Your task to perform on an android device: turn off improve location accuracy Image 0: 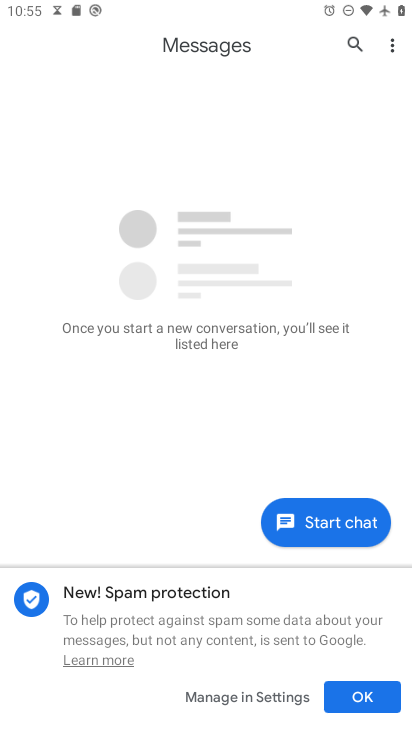
Step 0: press home button
Your task to perform on an android device: turn off improve location accuracy Image 1: 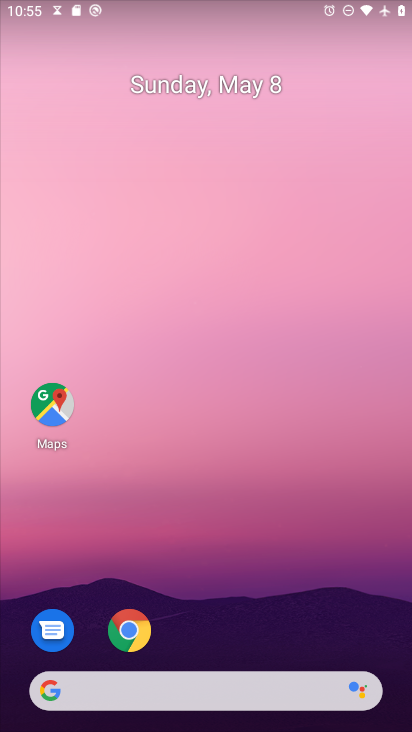
Step 1: drag from (148, 687) to (233, 196)
Your task to perform on an android device: turn off improve location accuracy Image 2: 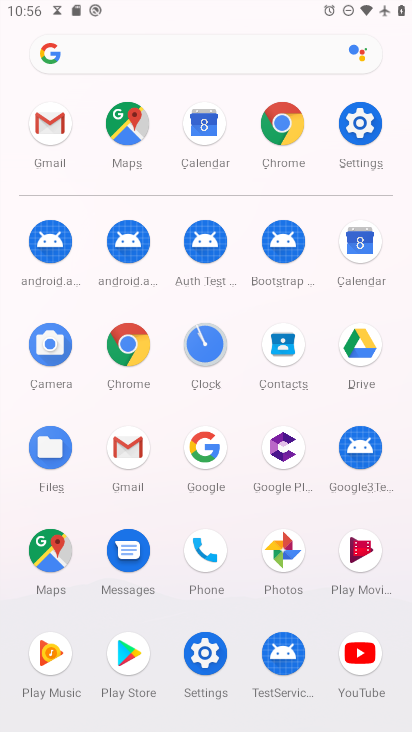
Step 2: click (368, 124)
Your task to perform on an android device: turn off improve location accuracy Image 3: 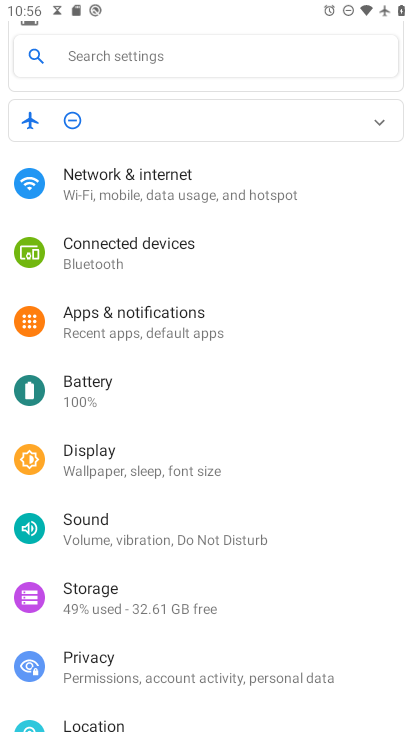
Step 3: drag from (214, 582) to (303, 314)
Your task to perform on an android device: turn off improve location accuracy Image 4: 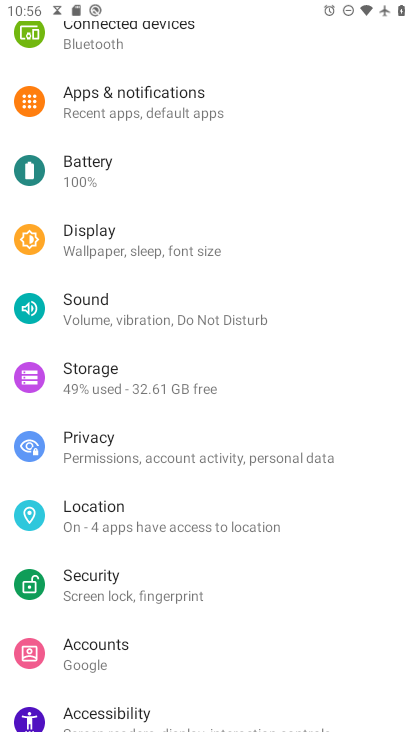
Step 4: click (109, 512)
Your task to perform on an android device: turn off improve location accuracy Image 5: 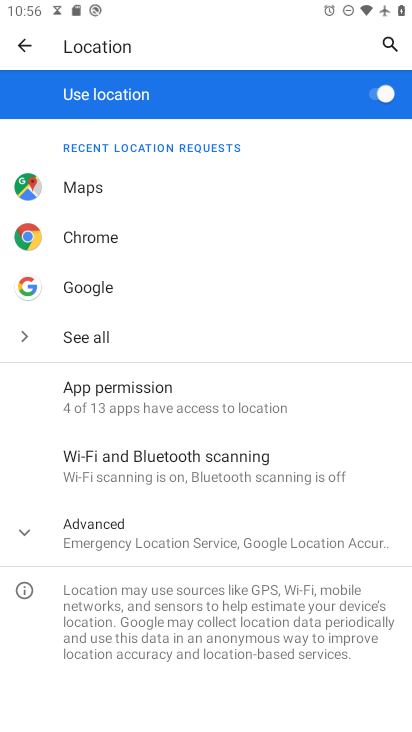
Step 5: click (146, 539)
Your task to perform on an android device: turn off improve location accuracy Image 6: 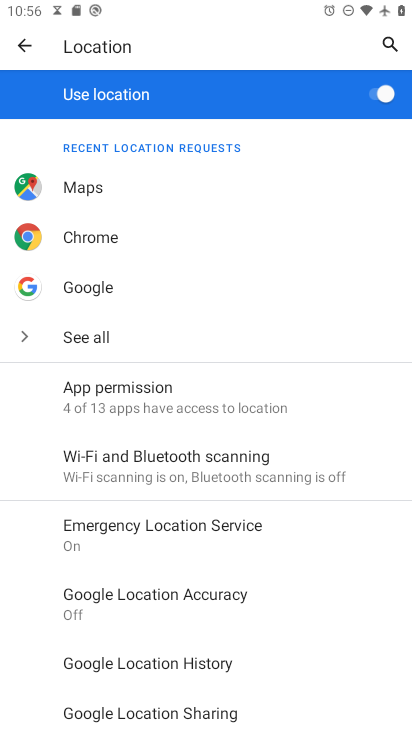
Step 6: click (173, 599)
Your task to perform on an android device: turn off improve location accuracy Image 7: 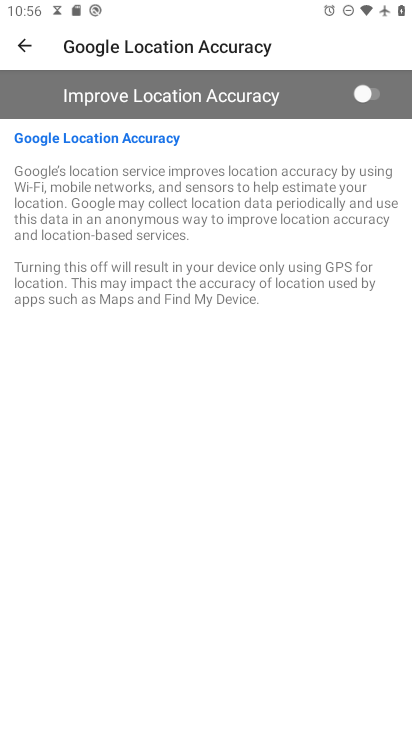
Step 7: task complete